Your task to perform on an android device: turn on translation in the chrome app Image 0: 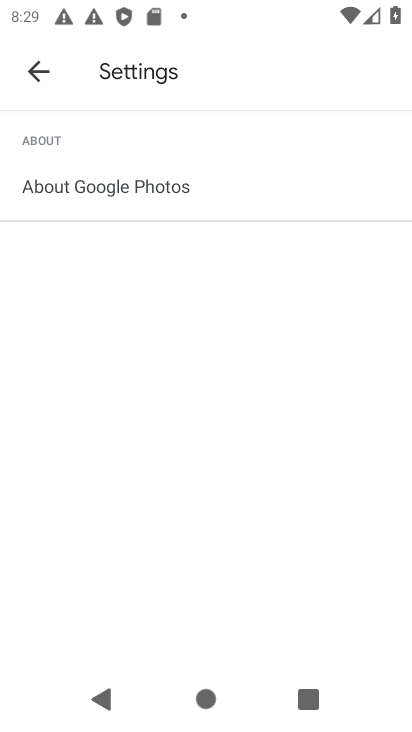
Step 0: press home button
Your task to perform on an android device: turn on translation in the chrome app Image 1: 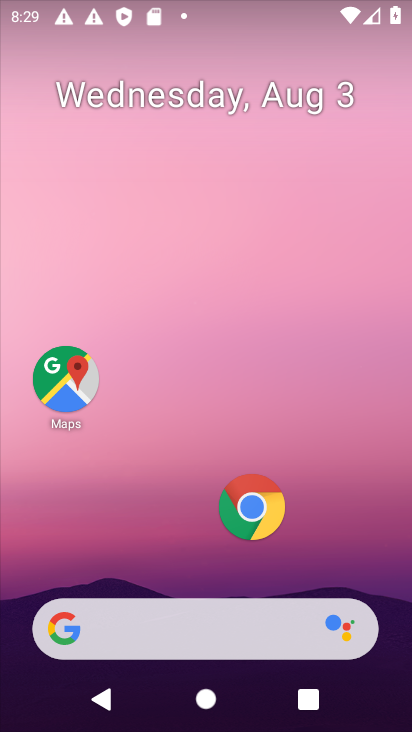
Step 1: click (245, 512)
Your task to perform on an android device: turn on translation in the chrome app Image 2: 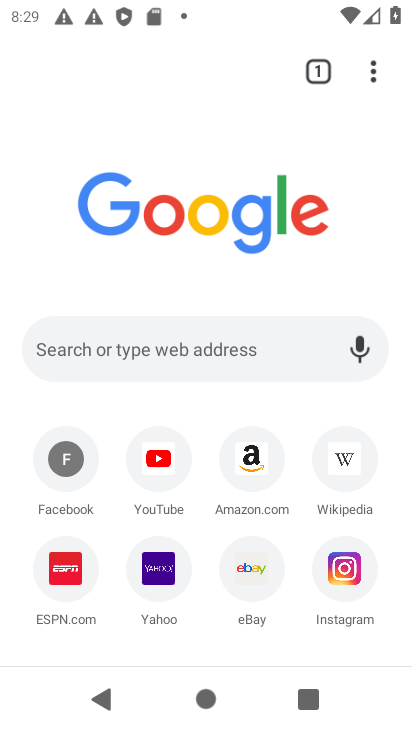
Step 2: click (372, 74)
Your task to perform on an android device: turn on translation in the chrome app Image 3: 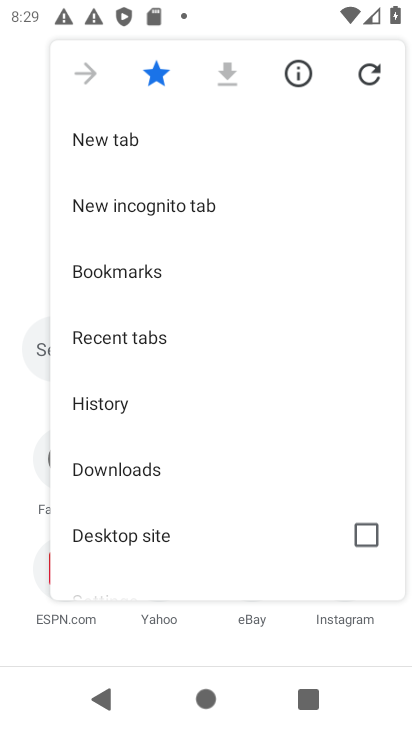
Step 3: drag from (129, 487) to (154, 184)
Your task to perform on an android device: turn on translation in the chrome app Image 4: 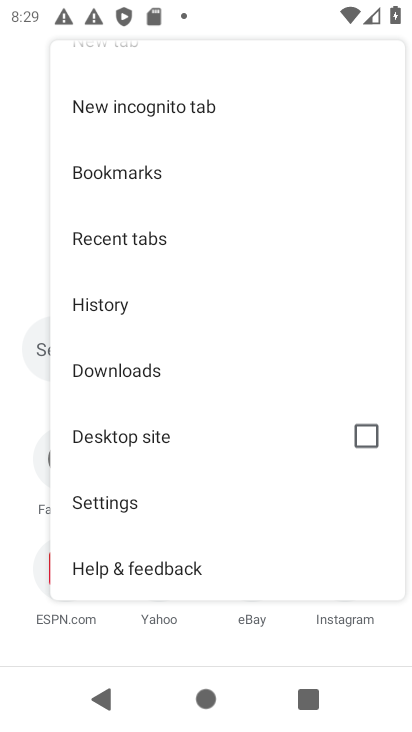
Step 4: click (121, 500)
Your task to perform on an android device: turn on translation in the chrome app Image 5: 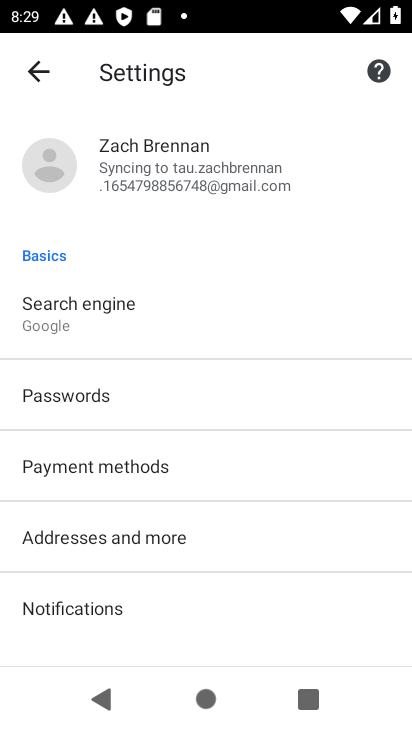
Step 5: drag from (92, 502) to (128, 200)
Your task to perform on an android device: turn on translation in the chrome app Image 6: 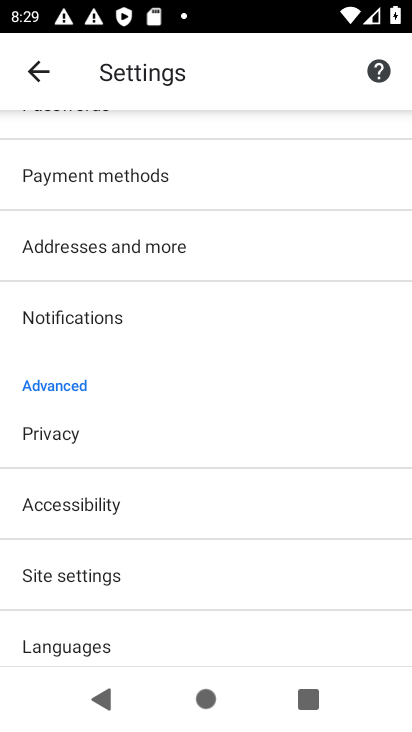
Step 6: click (67, 645)
Your task to perform on an android device: turn on translation in the chrome app Image 7: 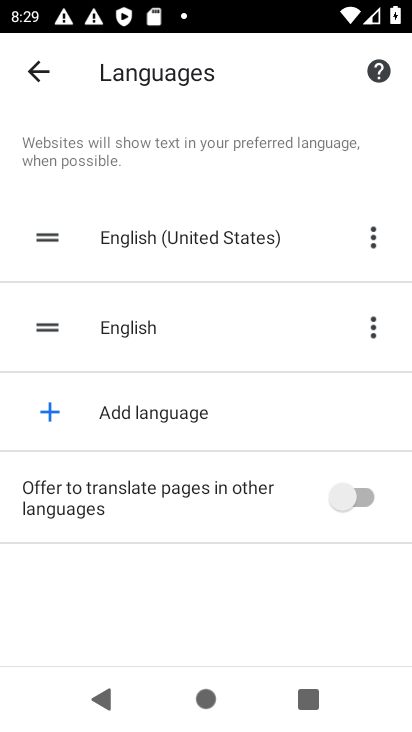
Step 7: click (365, 494)
Your task to perform on an android device: turn on translation in the chrome app Image 8: 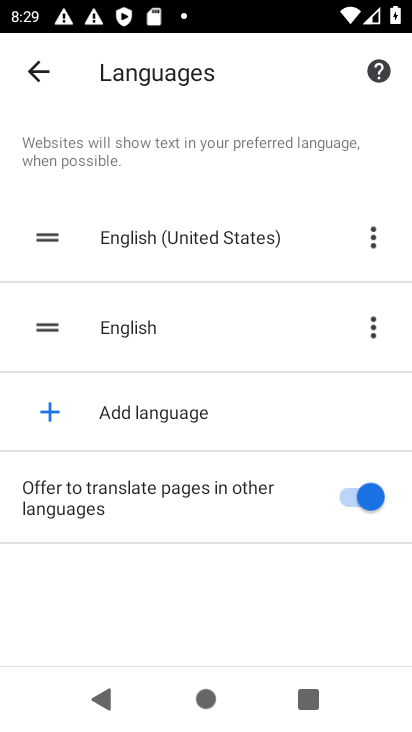
Step 8: task complete